Your task to perform on an android device: read, delete, or share a saved page in the chrome app Image 0: 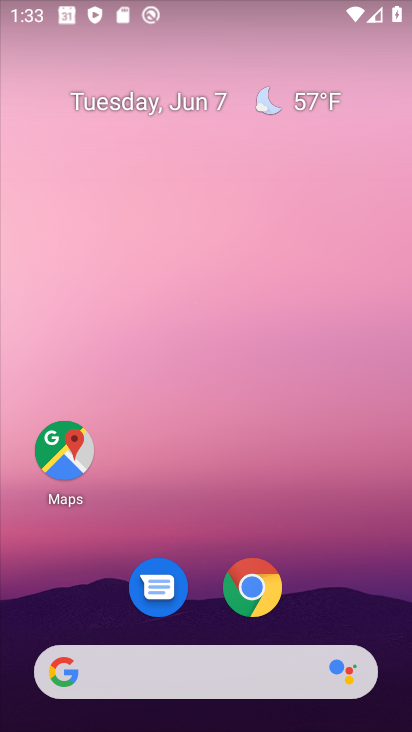
Step 0: click (265, 605)
Your task to perform on an android device: read, delete, or share a saved page in the chrome app Image 1: 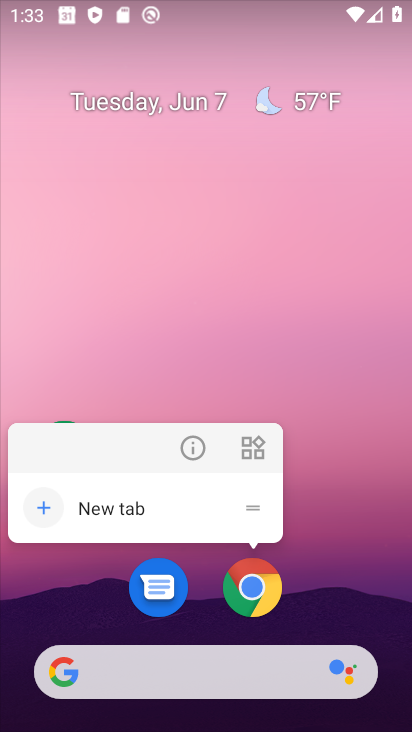
Step 1: click (261, 603)
Your task to perform on an android device: read, delete, or share a saved page in the chrome app Image 2: 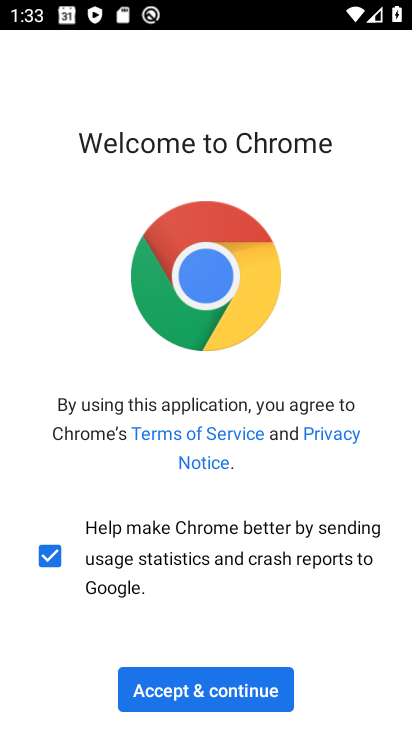
Step 2: click (253, 700)
Your task to perform on an android device: read, delete, or share a saved page in the chrome app Image 3: 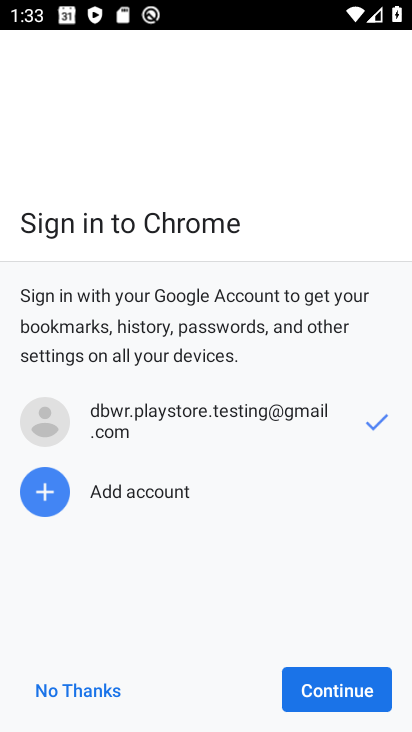
Step 3: click (321, 692)
Your task to perform on an android device: read, delete, or share a saved page in the chrome app Image 4: 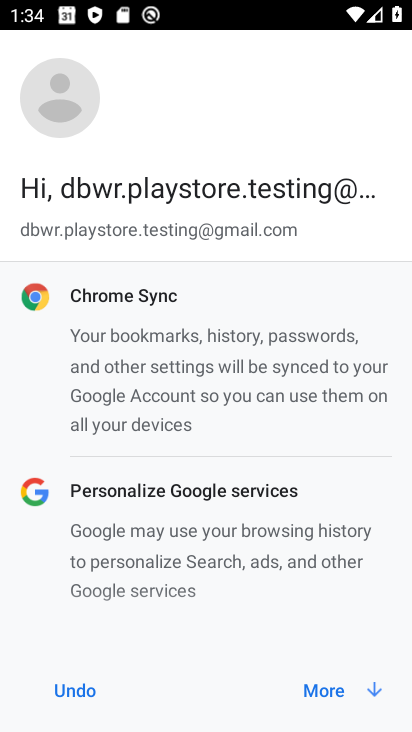
Step 4: click (315, 701)
Your task to perform on an android device: read, delete, or share a saved page in the chrome app Image 5: 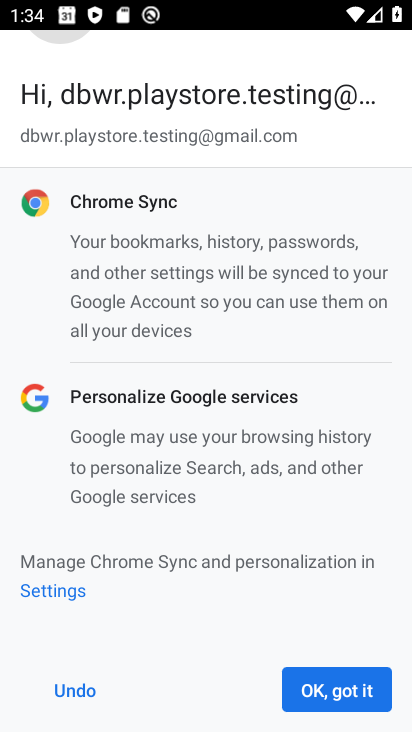
Step 5: click (315, 701)
Your task to perform on an android device: read, delete, or share a saved page in the chrome app Image 6: 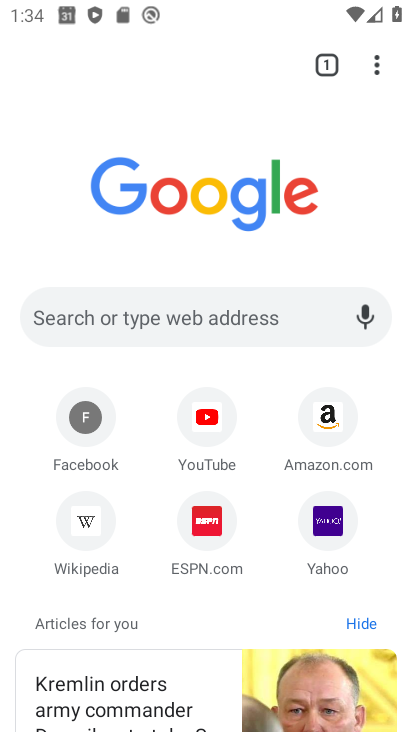
Step 6: drag from (382, 54) to (238, 422)
Your task to perform on an android device: read, delete, or share a saved page in the chrome app Image 7: 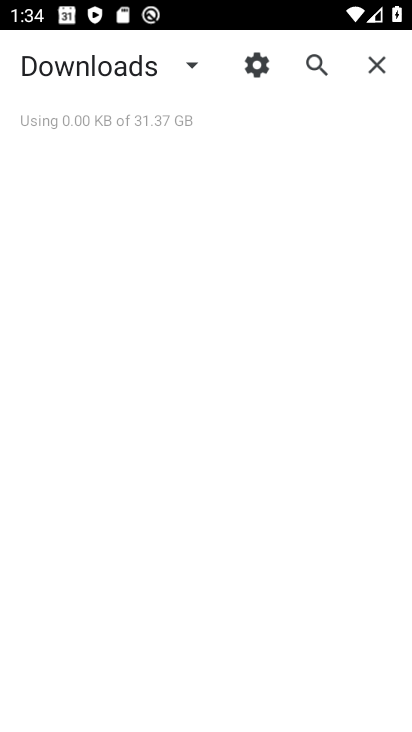
Step 7: click (143, 74)
Your task to perform on an android device: read, delete, or share a saved page in the chrome app Image 8: 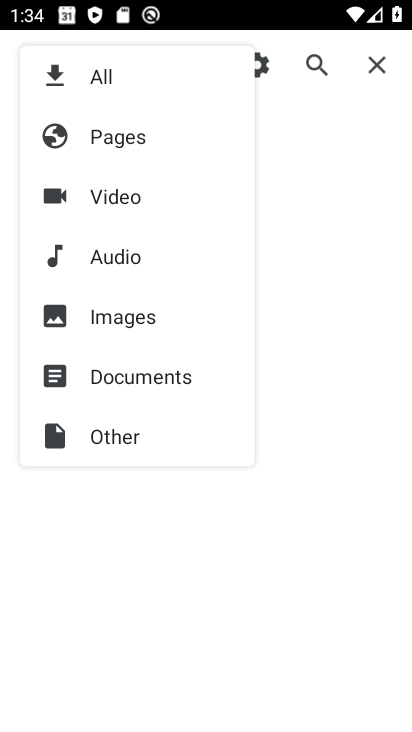
Step 8: click (158, 142)
Your task to perform on an android device: read, delete, or share a saved page in the chrome app Image 9: 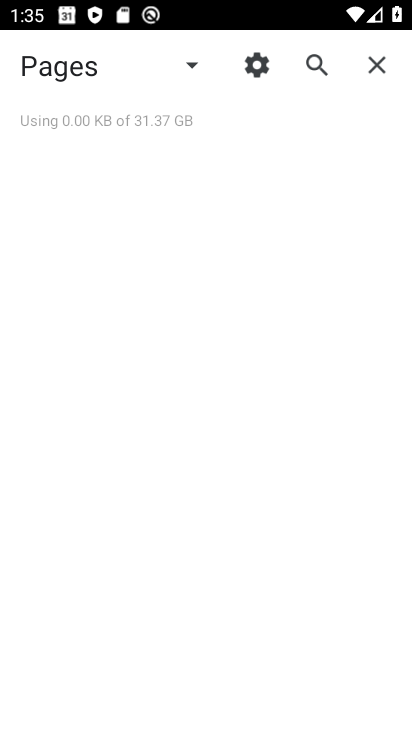
Step 9: task complete